Your task to perform on an android device: all mails in gmail Image 0: 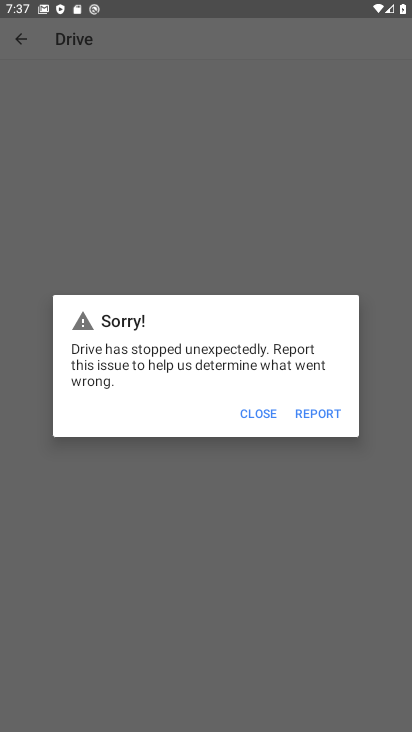
Step 0: press home button
Your task to perform on an android device: all mails in gmail Image 1: 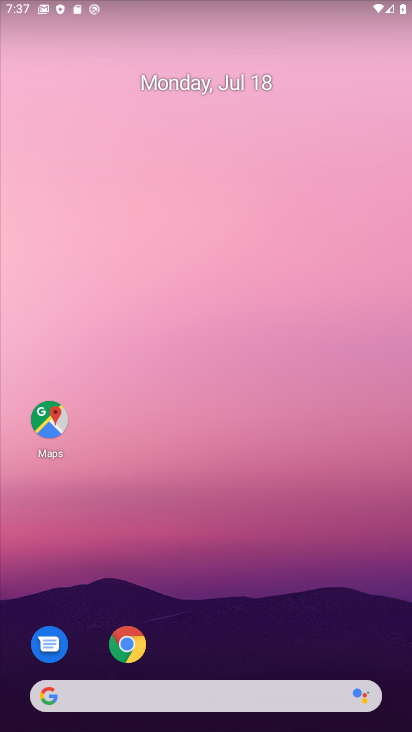
Step 1: drag from (140, 692) to (325, 309)
Your task to perform on an android device: all mails in gmail Image 2: 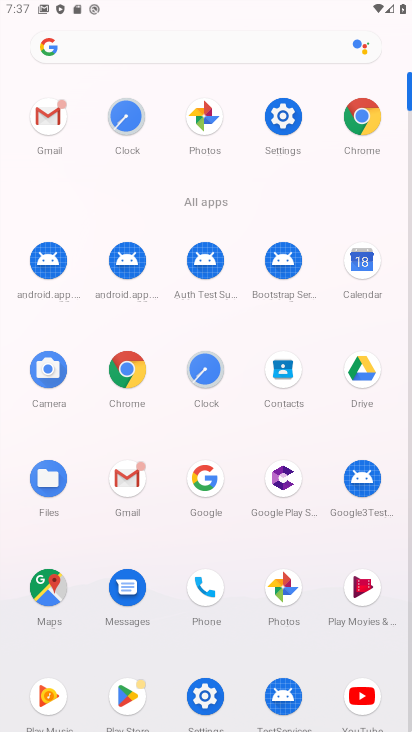
Step 2: click (118, 479)
Your task to perform on an android device: all mails in gmail Image 3: 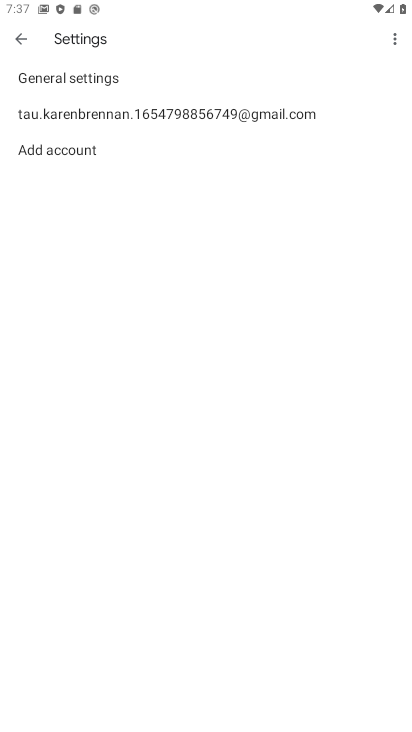
Step 3: click (26, 37)
Your task to perform on an android device: all mails in gmail Image 4: 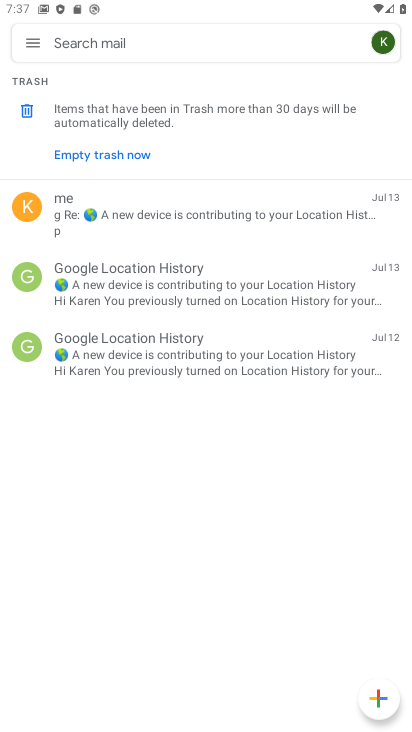
Step 4: click (34, 46)
Your task to perform on an android device: all mails in gmail Image 5: 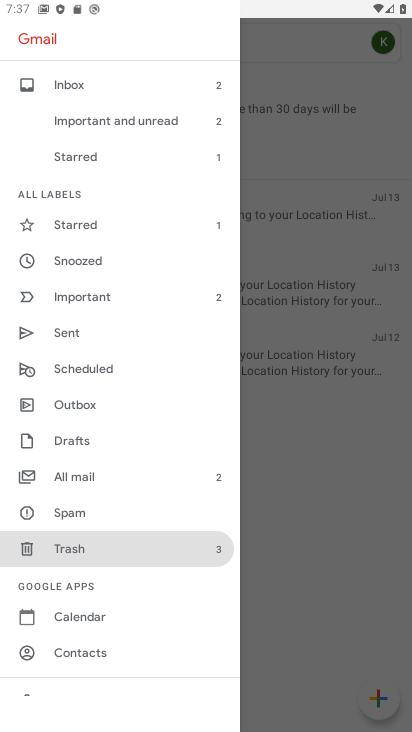
Step 5: click (85, 472)
Your task to perform on an android device: all mails in gmail Image 6: 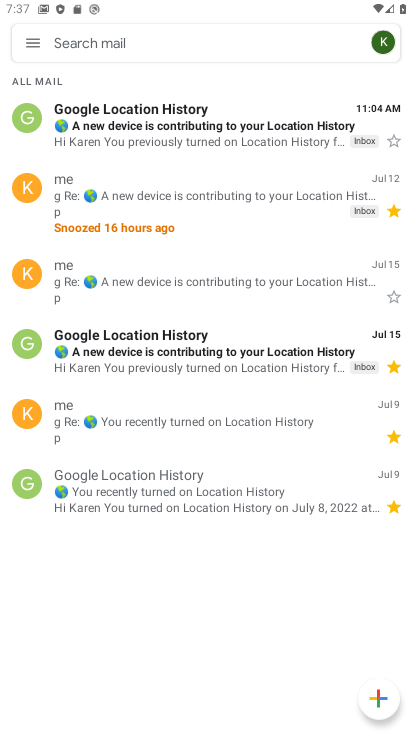
Step 6: task complete